Your task to perform on an android device: Go to ESPN.com Image 0: 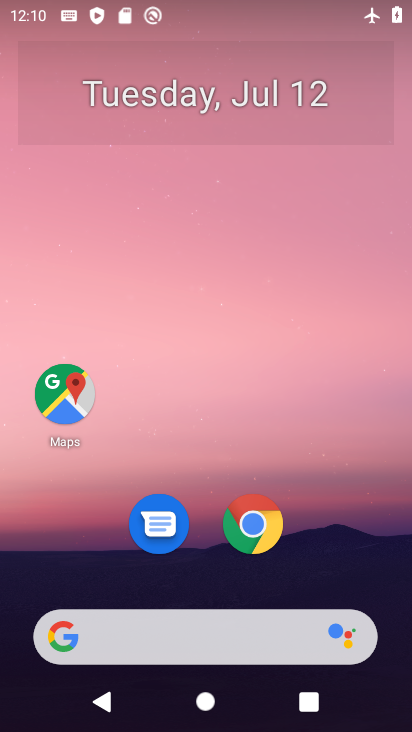
Step 0: click (258, 647)
Your task to perform on an android device: Go to ESPN.com Image 1: 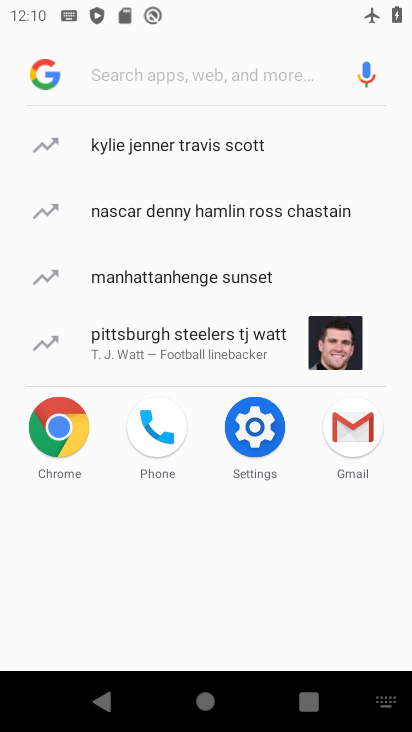
Step 1: type "espn.com"
Your task to perform on an android device: Go to ESPN.com Image 2: 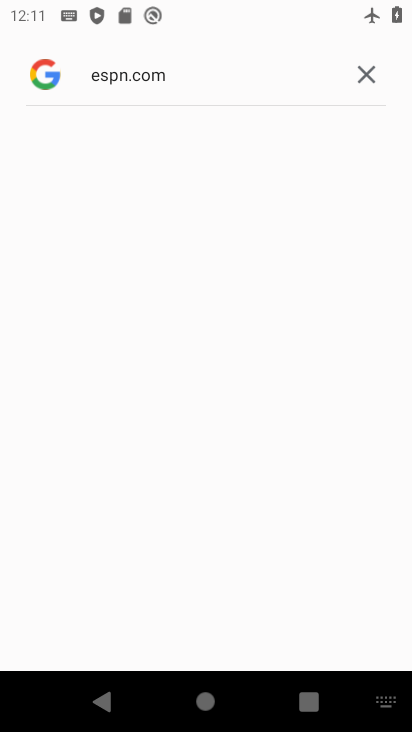
Step 2: task complete